Your task to perform on an android device: Open the Play Movies app and select the watchlist tab. Image 0: 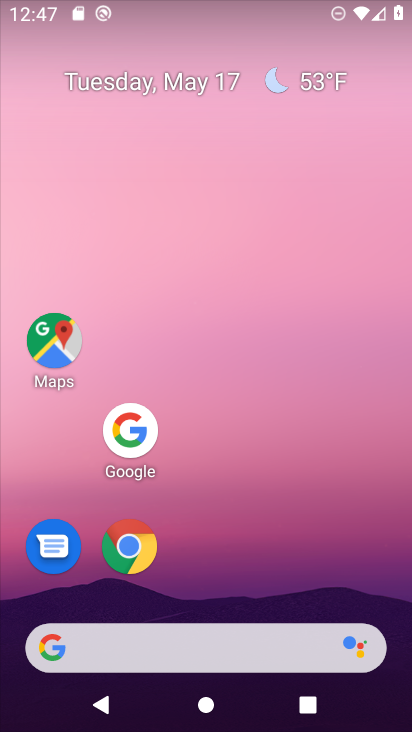
Step 0: drag from (230, 530) to (270, 55)
Your task to perform on an android device: Open the Play Movies app and select the watchlist tab. Image 1: 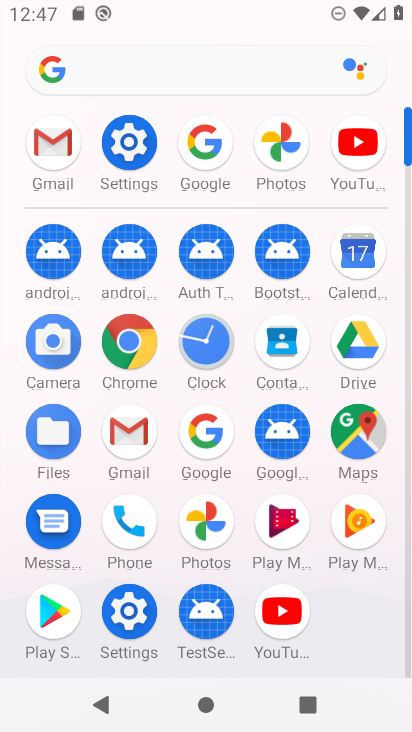
Step 1: click (279, 521)
Your task to perform on an android device: Open the Play Movies app and select the watchlist tab. Image 2: 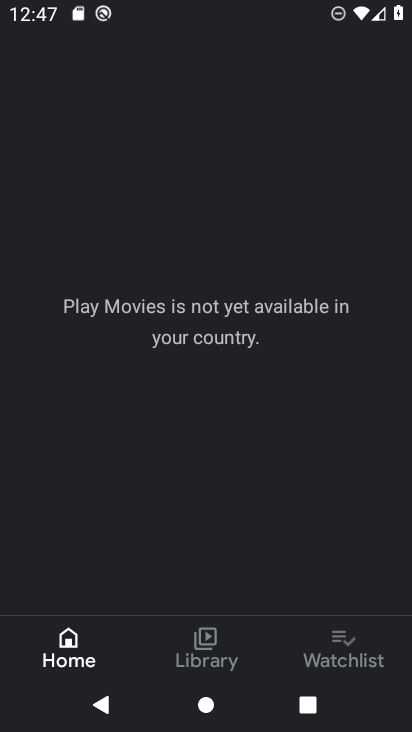
Step 2: click (341, 659)
Your task to perform on an android device: Open the Play Movies app and select the watchlist tab. Image 3: 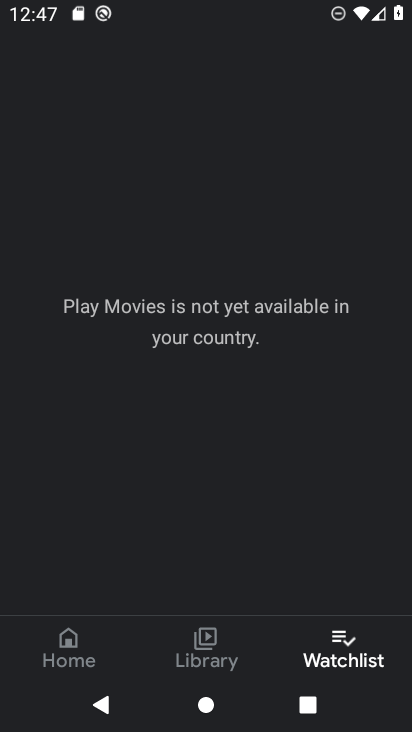
Step 3: task complete